Your task to perform on an android device: Open Google Maps Image 0: 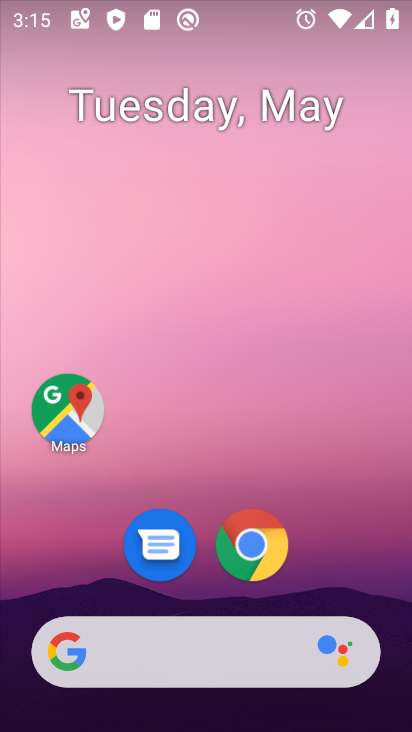
Step 0: click (43, 409)
Your task to perform on an android device: Open Google Maps Image 1: 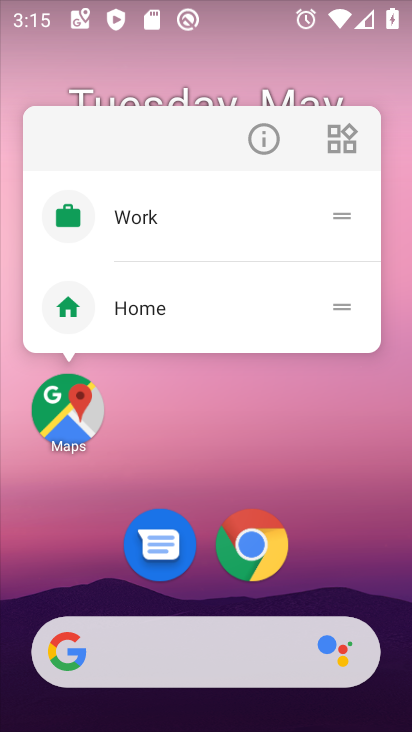
Step 1: click (99, 402)
Your task to perform on an android device: Open Google Maps Image 2: 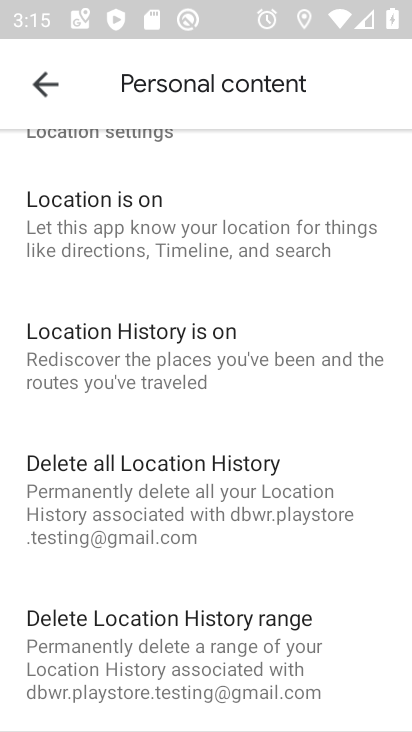
Step 2: task complete